Your task to perform on an android device: Go to CNN.com Image 0: 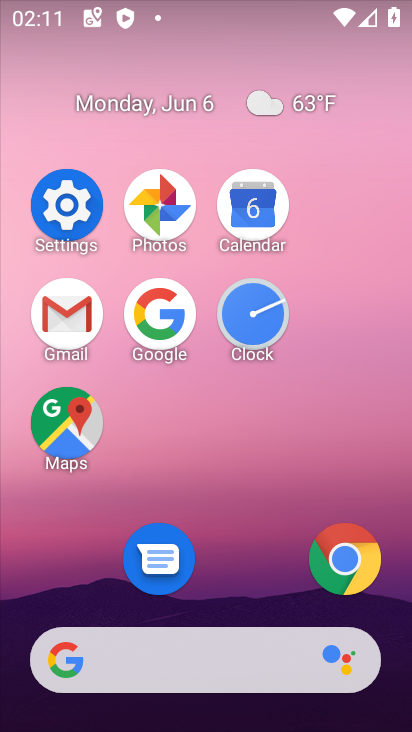
Step 0: click (333, 554)
Your task to perform on an android device: Go to CNN.com Image 1: 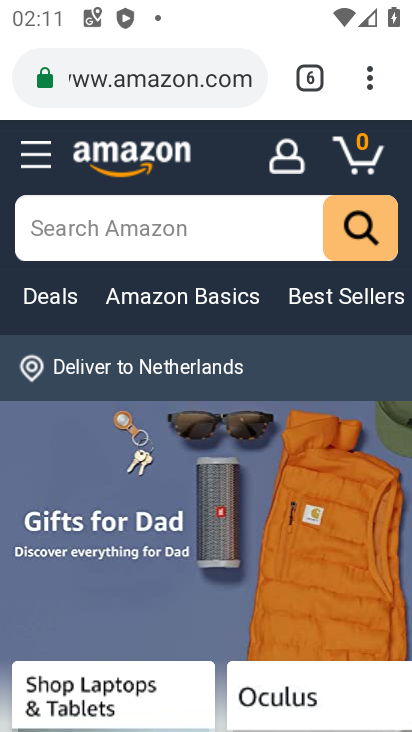
Step 1: click (306, 76)
Your task to perform on an android device: Go to CNN.com Image 2: 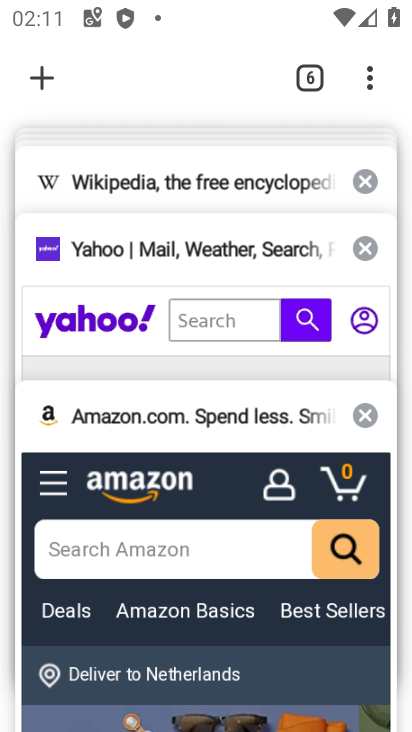
Step 2: drag from (240, 183) to (180, 589)
Your task to perform on an android device: Go to CNN.com Image 3: 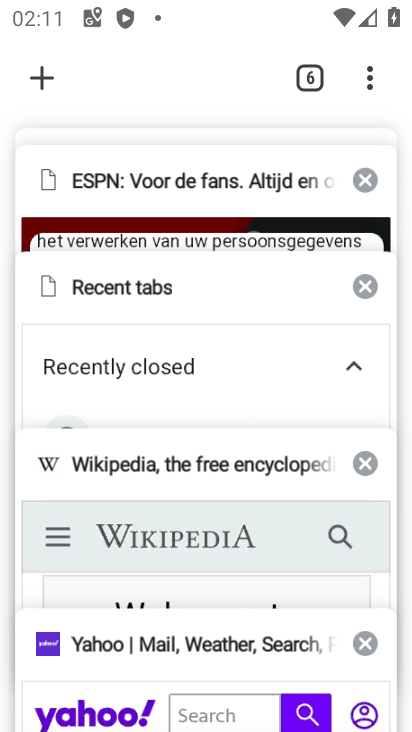
Step 3: click (41, 75)
Your task to perform on an android device: Go to CNN.com Image 4: 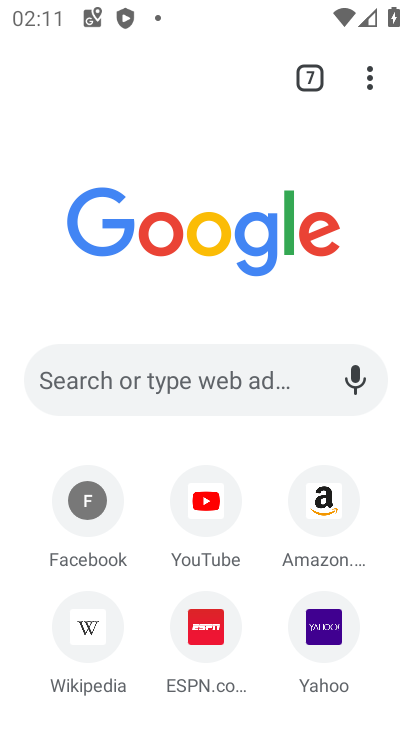
Step 4: click (149, 369)
Your task to perform on an android device: Go to CNN.com Image 5: 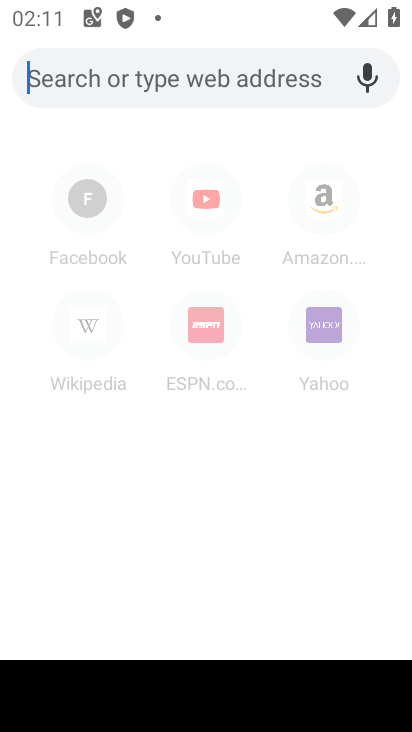
Step 5: type "cnn"
Your task to perform on an android device: Go to CNN.com Image 6: 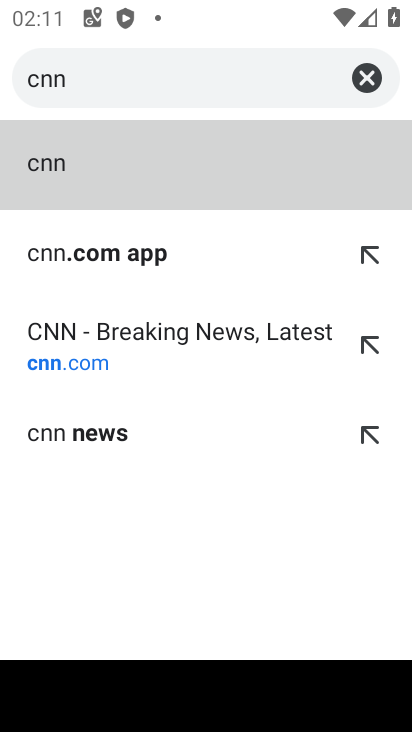
Step 6: click (89, 344)
Your task to perform on an android device: Go to CNN.com Image 7: 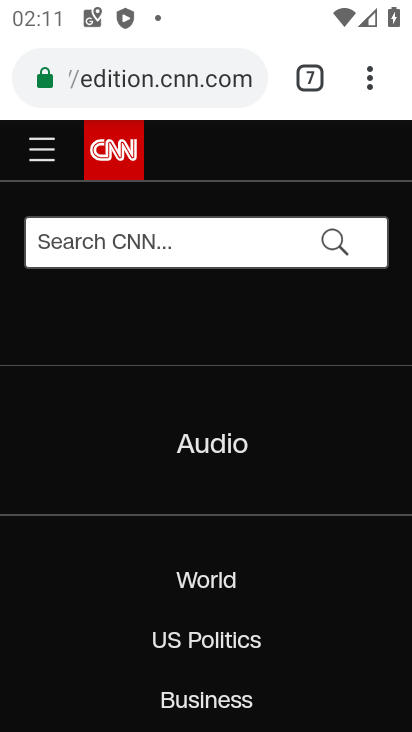
Step 7: task complete